Your task to perform on an android device: Do I have any events this weekend? Image 0: 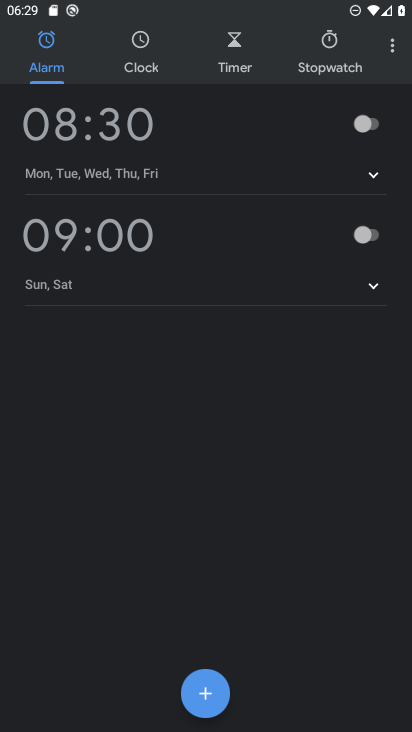
Step 0: press home button
Your task to perform on an android device: Do I have any events this weekend? Image 1: 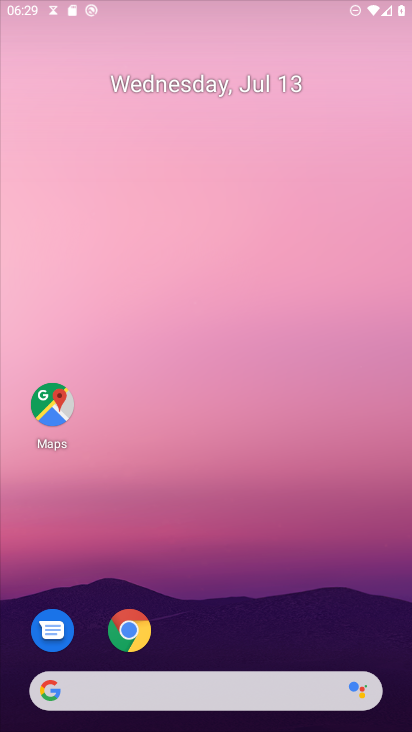
Step 1: drag from (264, 707) to (271, 4)
Your task to perform on an android device: Do I have any events this weekend? Image 2: 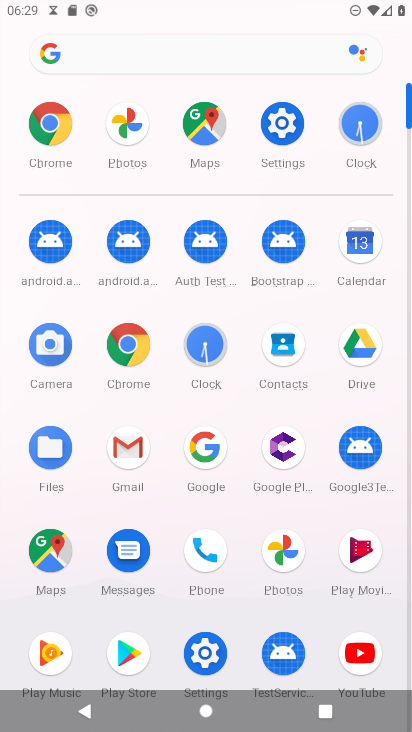
Step 2: click (358, 246)
Your task to perform on an android device: Do I have any events this weekend? Image 3: 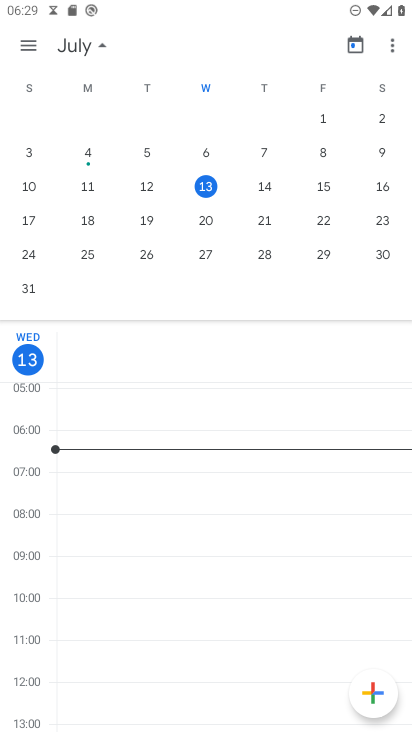
Step 3: click (378, 182)
Your task to perform on an android device: Do I have any events this weekend? Image 4: 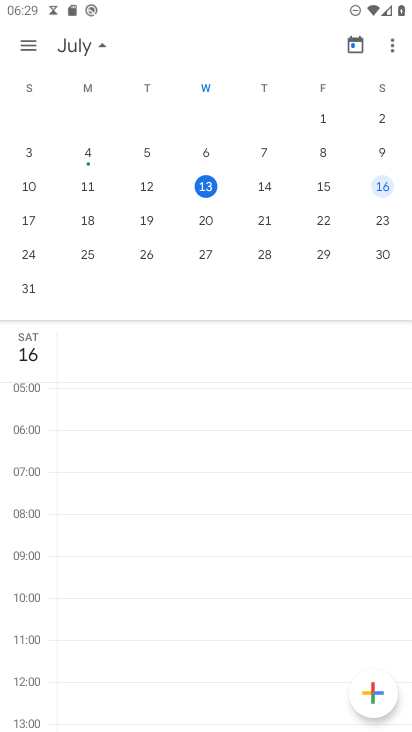
Step 4: task complete